Your task to perform on an android device: clear history in the chrome app Image 0: 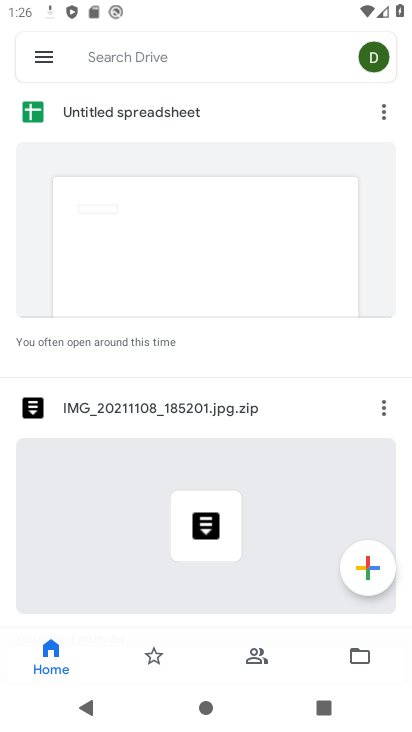
Step 0: press home button
Your task to perform on an android device: clear history in the chrome app Image 1: 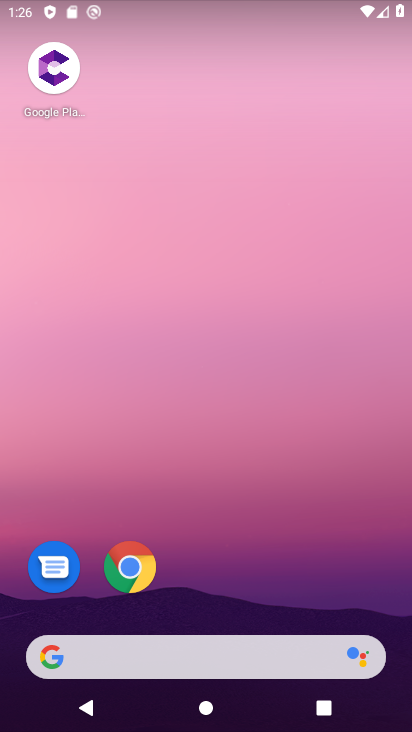
Step 1: click (141, 567)
Your task to perform on an android device: clear history in the chrome app Image 2: 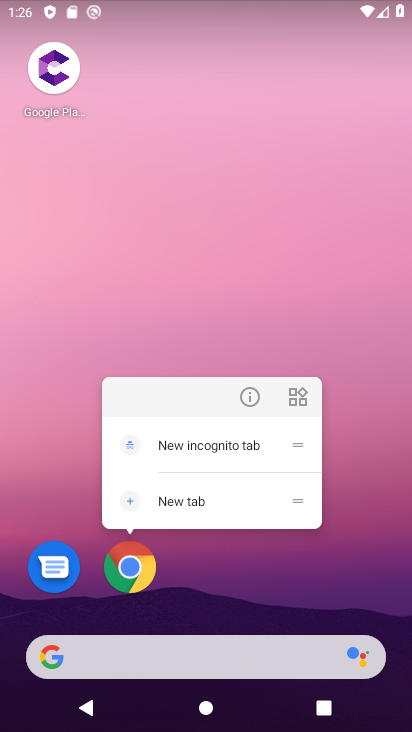
Step 2: click (130, 570)
Your task to perform on an android device: clear history in the chrome app Image 3: 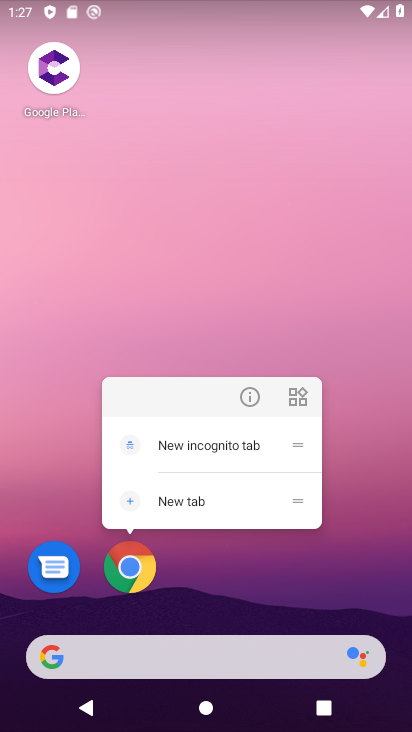
Step 3: click (139, 567)
Your task to perform on an android device: clear history in the chrome app Image 4: 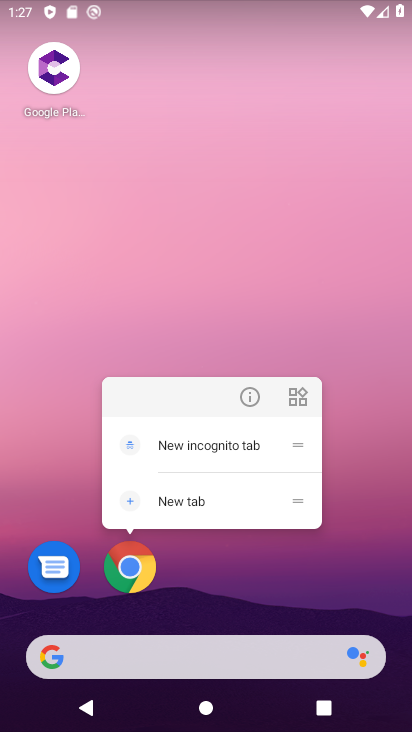
Step 4: click (135, 568)
Your task to perform on an android device: clear history in the chrome app Image 5: 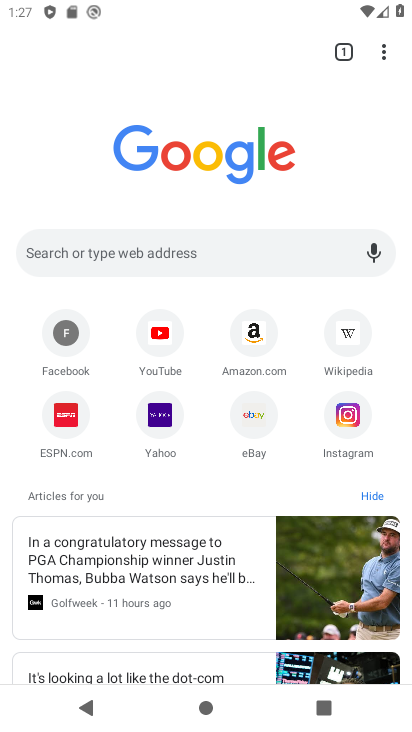
Step 5: drag from (383, 46) to (327, 292)
Your task to perform on an android device: clear history in the chrome app Image 6: 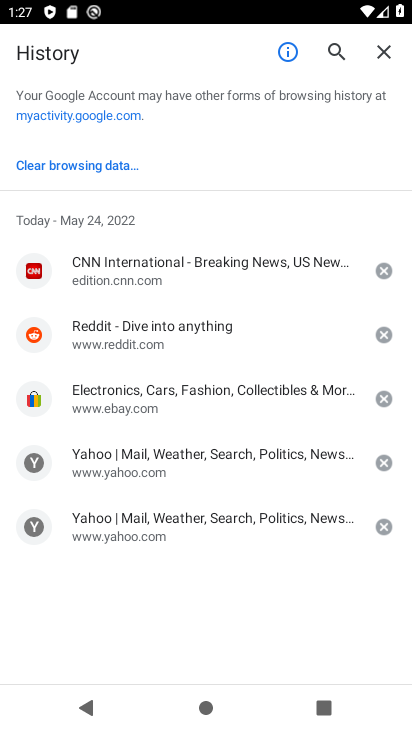
Step 6: click (93, 164)
Your task to perform on an android device: clear history in the chrome app Image 7: 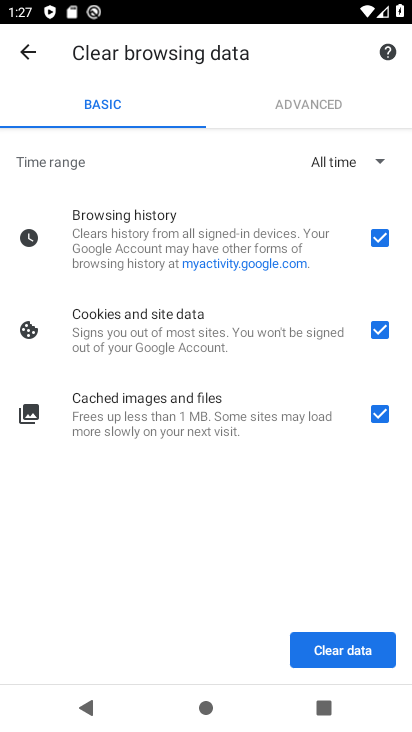
Step 7: click (348, 657)
Your task to perform on an android device: clear history in the chrome app Image 8: 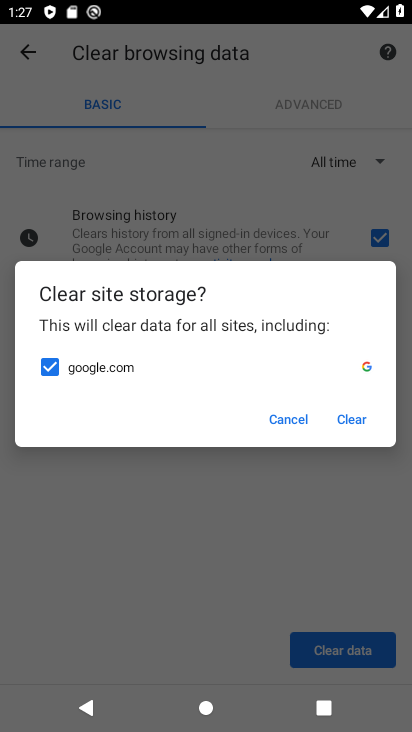
Step 8: click (346, 398)
Your task to perform on an android device: clear history in the chrome app Image 9: 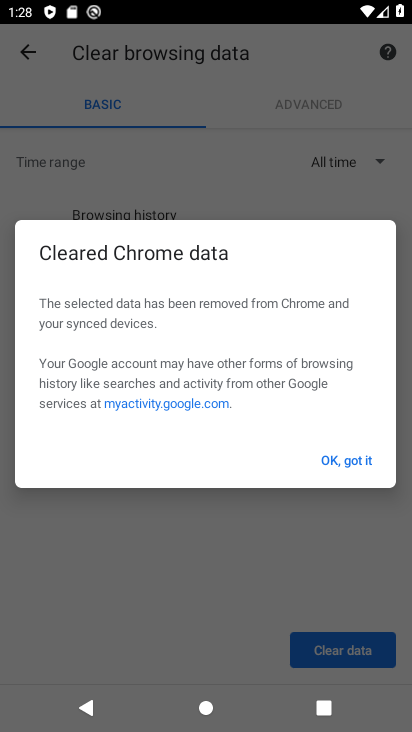
Step 9: click (360, 461)
Your task to perform on an android device: clear history in the chrome app Image 10: 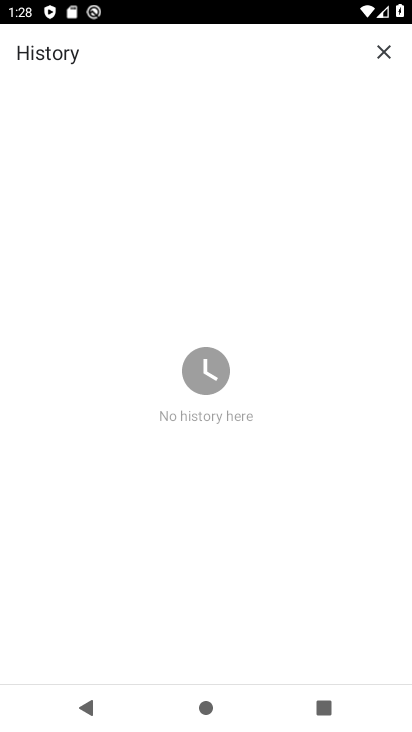
Step 10: task complete